Your task to perform on an android device: turn off wifi Image 0: 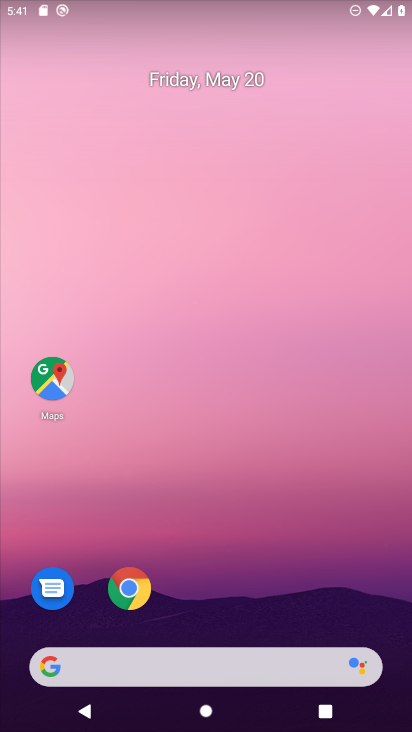
Step 0: drag from (230, 614) to (298, 243)
Your task to perform on an android device: turn off wifi Image 1: 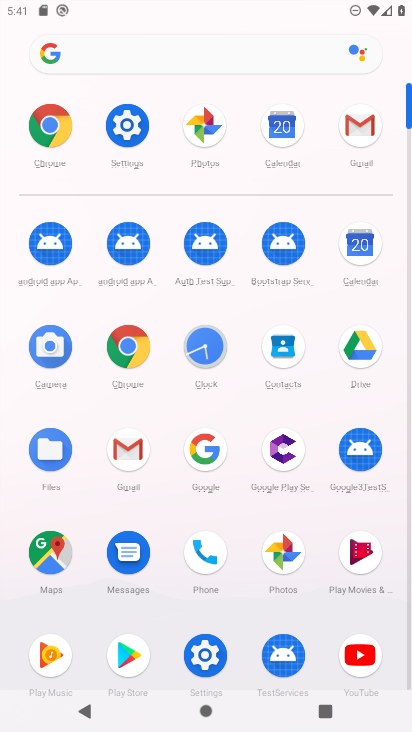
Step 1: click (137, 128)
Your task to perform on an android device: turn off wifi Image 2: 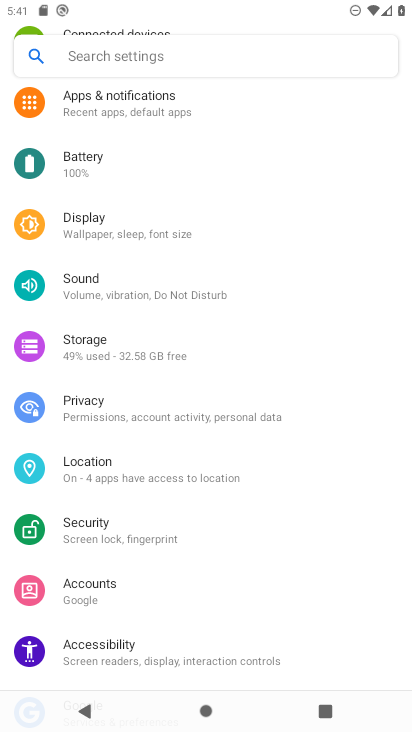
Step 2: drag from (130, 204) to (114, 488)
Your task to perform on an android device: turn off wifi Image 3: 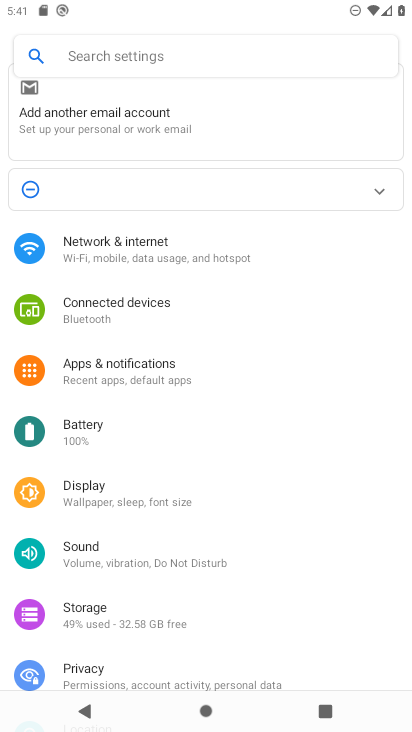
Step 3: click (100, 264)
Your task to perform on an android device: turn off wifi Image 4: 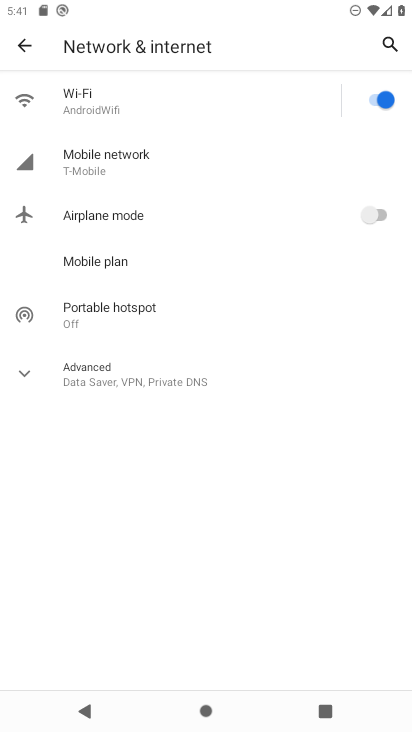
Step 4: click (362, 100)
Your task to perform on an android device: turn off wifi Image 5: 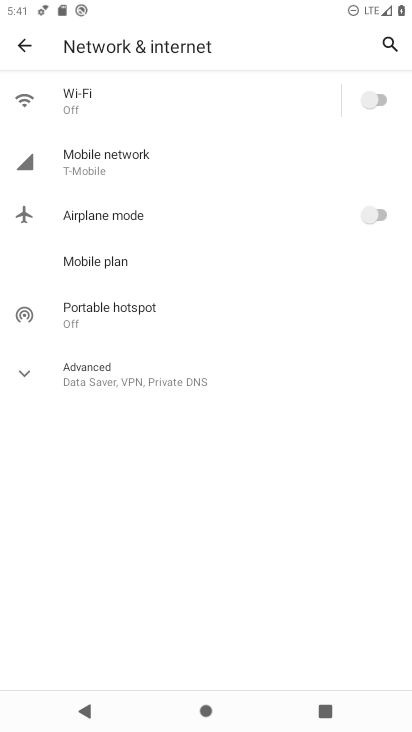
Step 5: task complete